Your task to perform on an android device: toggle notification dots Image 0: 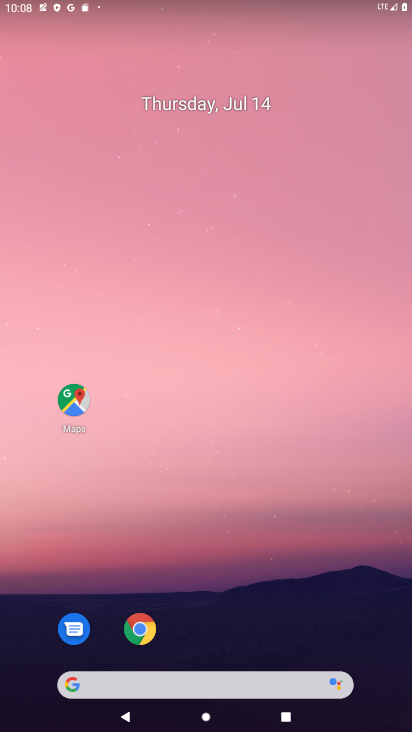
Step 0: drag from (73, 560) to (281, 195)
Your task to perform on an android device: toggle notification dots Image 1: 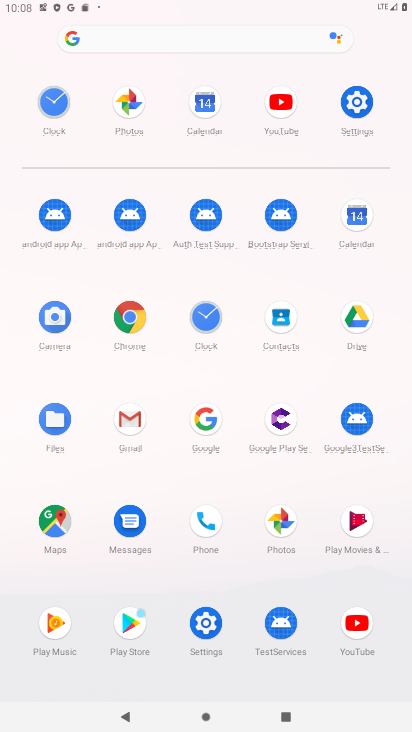
Step 1: click (362, 101)
Your task to perform on an android device: toggle notification dots Image 2: 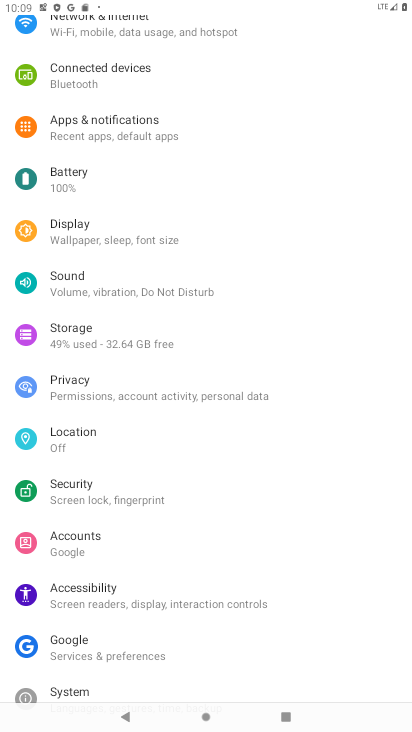
Step 2: click (128, 124)
Your task to perform on an android device: toggle notification dots Image 3: 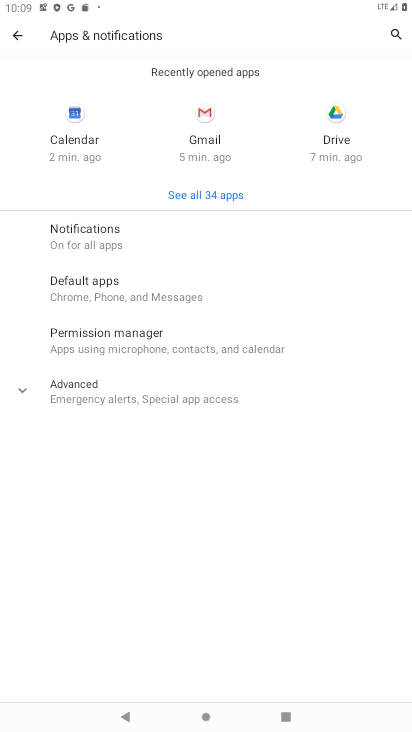
Step 3: click (105, 241)
Your task to perform on an android device: toggle notification dots Image 4: 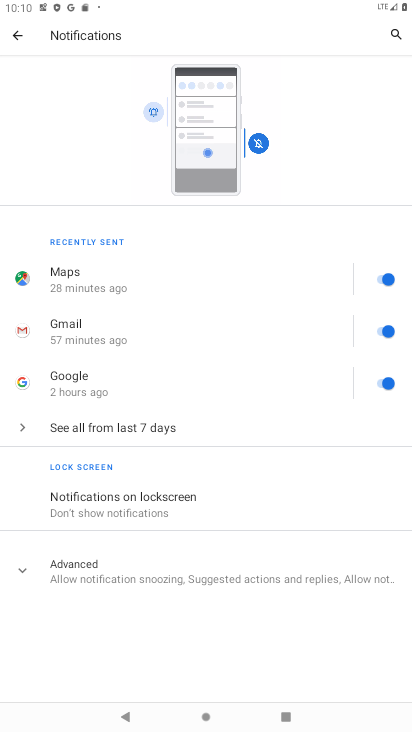
Step 4: click (123, 571)
Your task to perform on an android device: toggle notification dots Image 5: 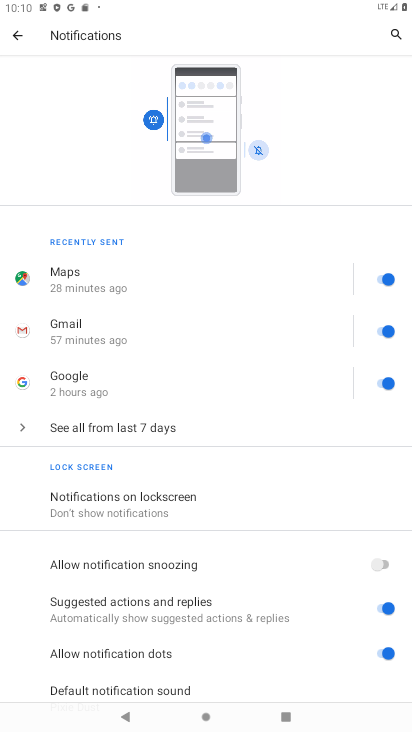
Step 5: click (393, 657)
Your task to perform on an android device: toggle notification dots Image 6: 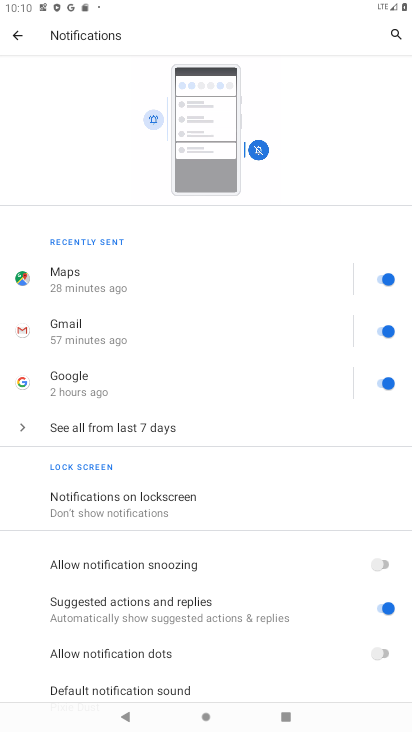
Step 6: task complete